Your task to perform on an android device: Open network settings Image 0: 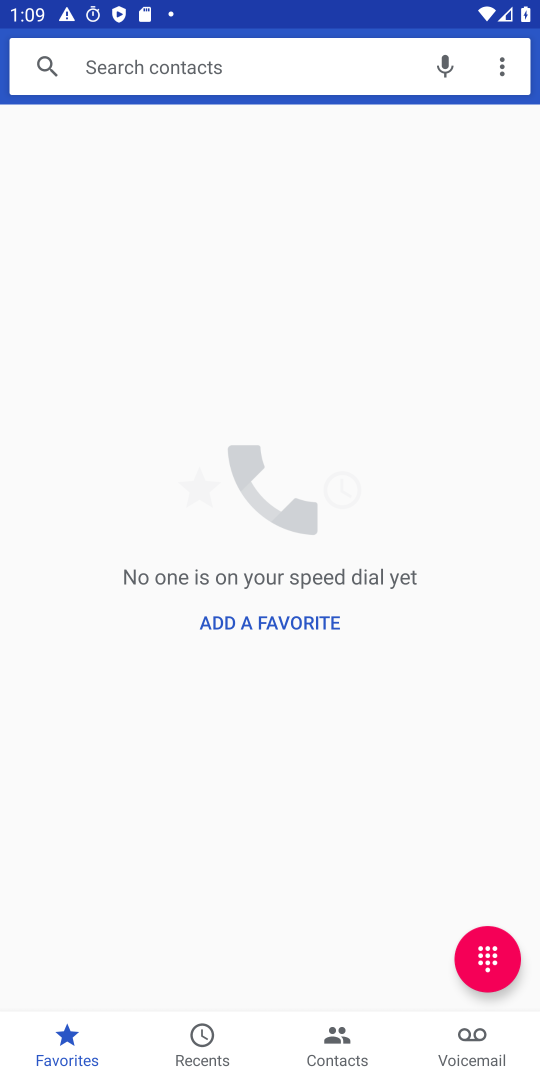
Step 0: press home button
Your task to perform on an android device: Open network settings Image 1: 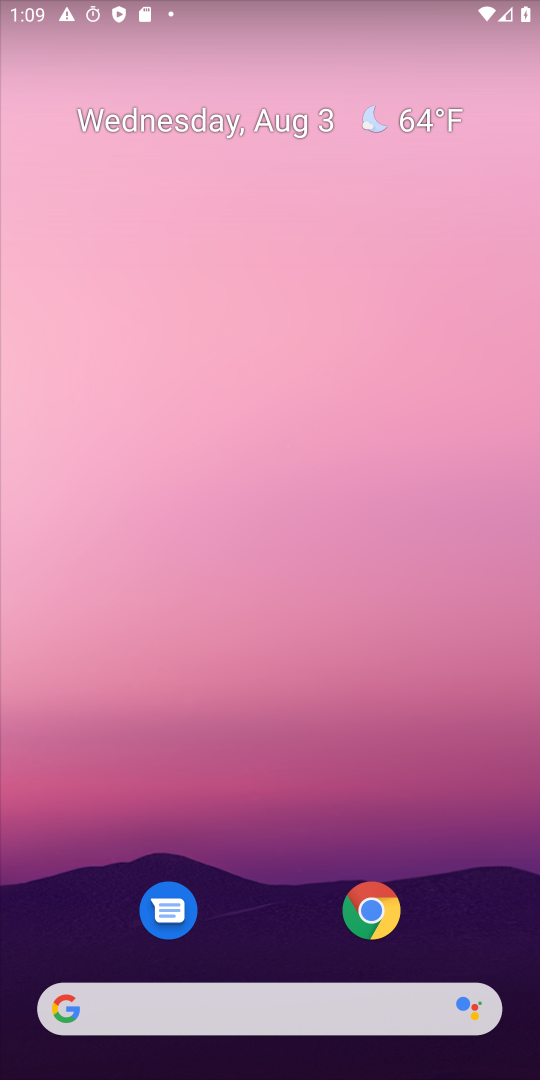
Step 1: drag from (265, 839) to (350, 67)
Your task to perform on an android device: Open network settings Image 2: 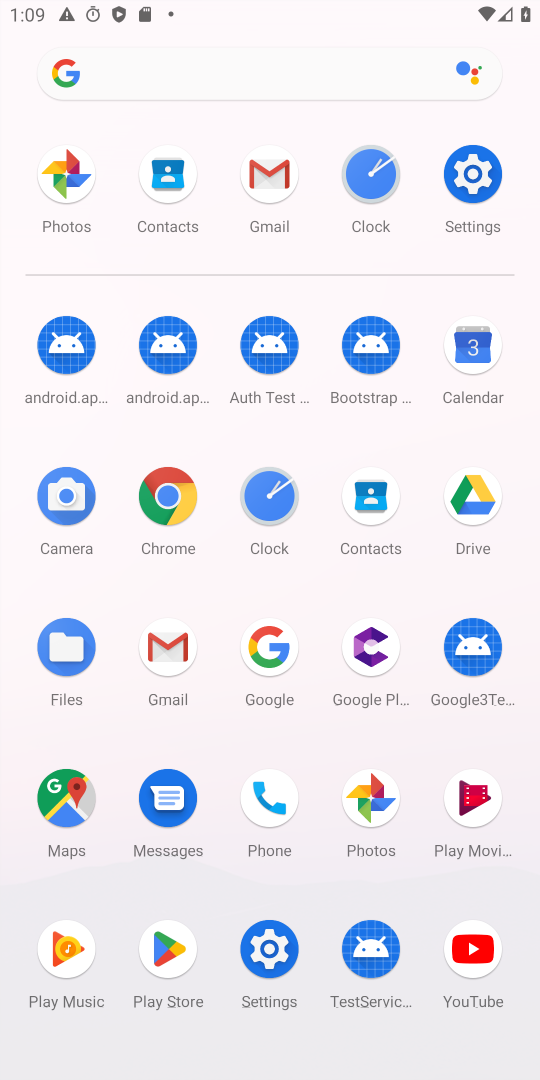
Step 2: click (485, 171)
Your task to perform on an android device: Open network settings Image 3: 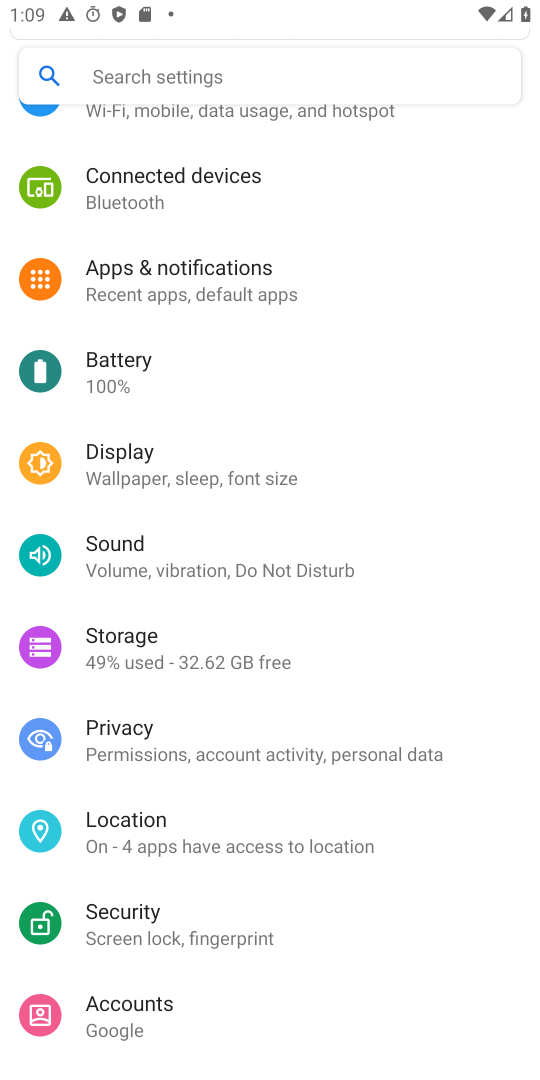
Step 3: drag from (193, 211) to (269, 871)
Your task to perform on an android device: Open network settings Image 4: 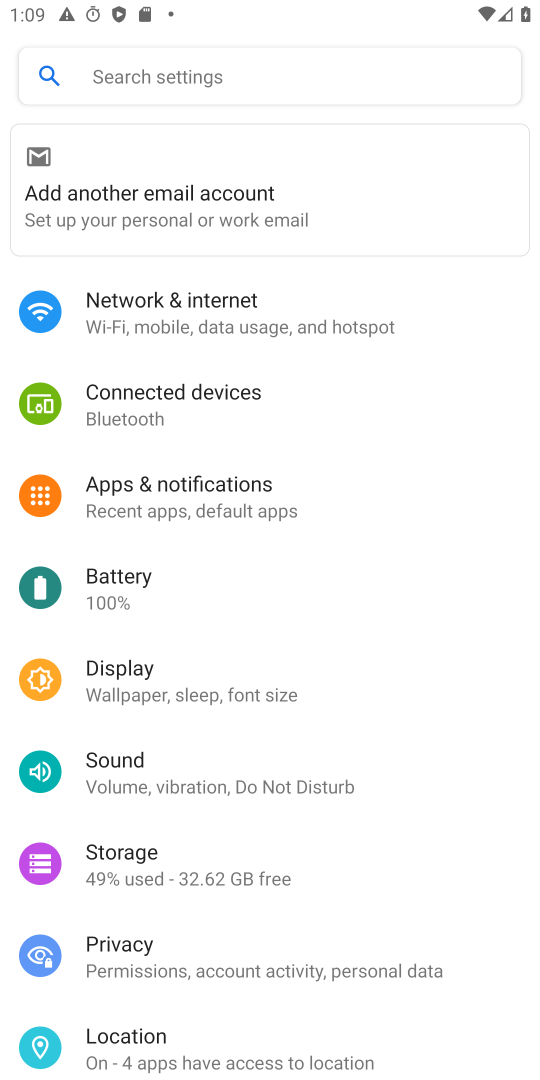
Step 4: click (171, 324)
Your task to perform on an android device: Open network settings Image 5: 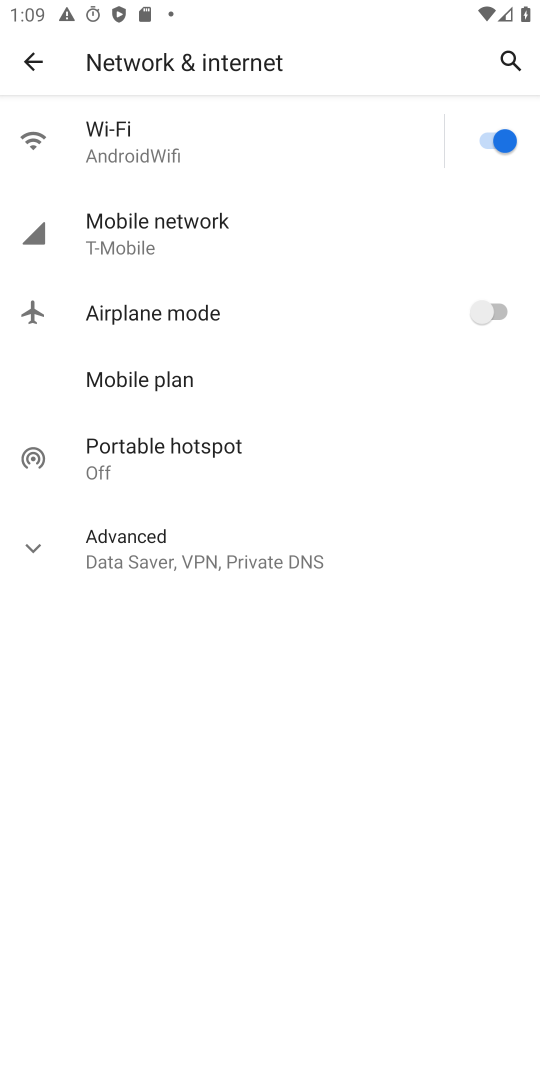
Step 5: click (235, 238)
Your task to perform on an android device: Open network settings Image 6: 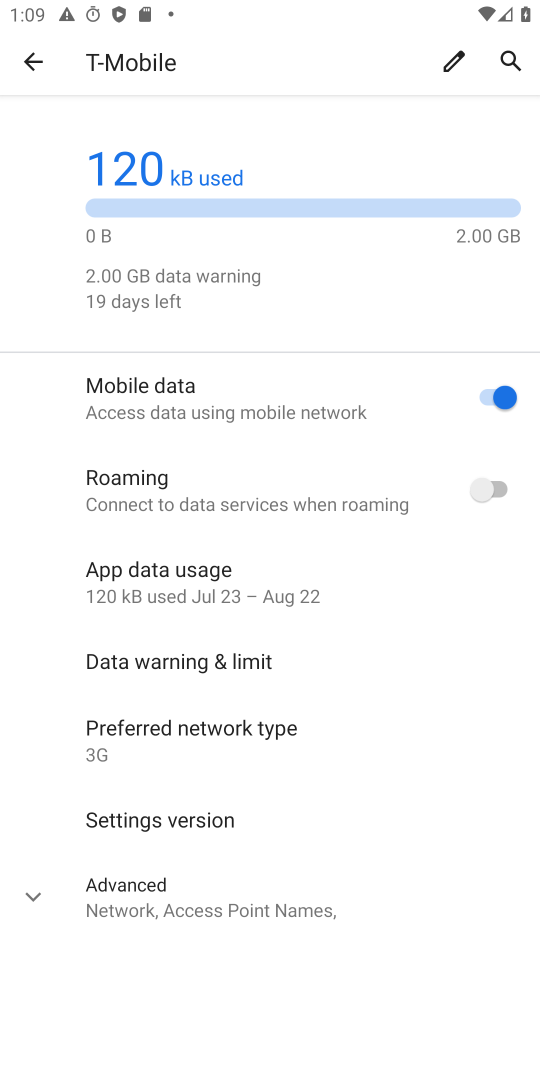
Step 6: task complete